Your task to perform on an android device: turn on bluetooth scan Image 0: 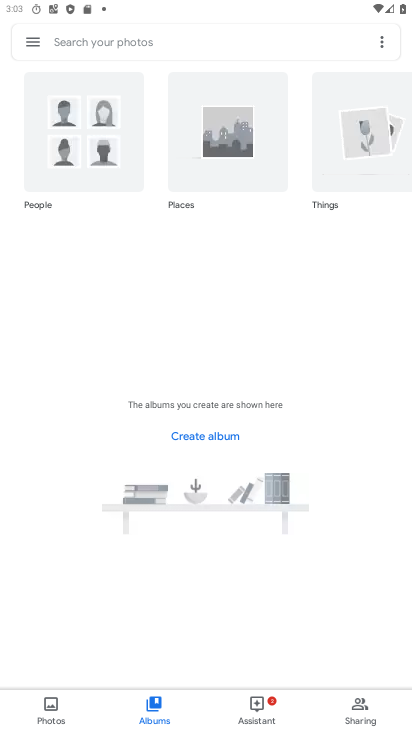
Step 0: click (93, 678)
Your task to perform on an android device: turn on bluetooth scan Image 1: 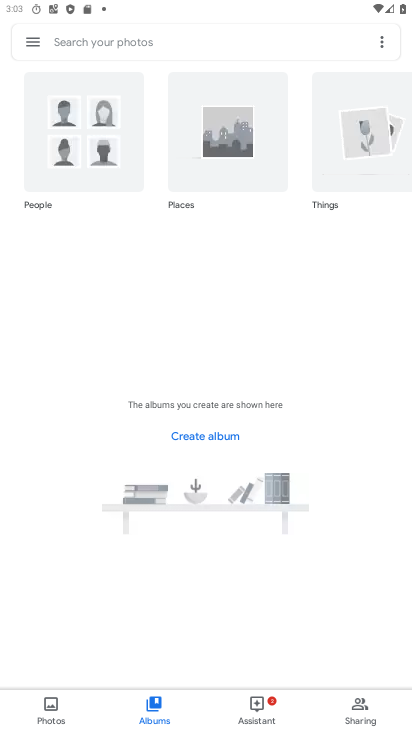
Step 1: click (49, 713)
Your task to perform on an android device: turn on bluetooth scan Image 2: 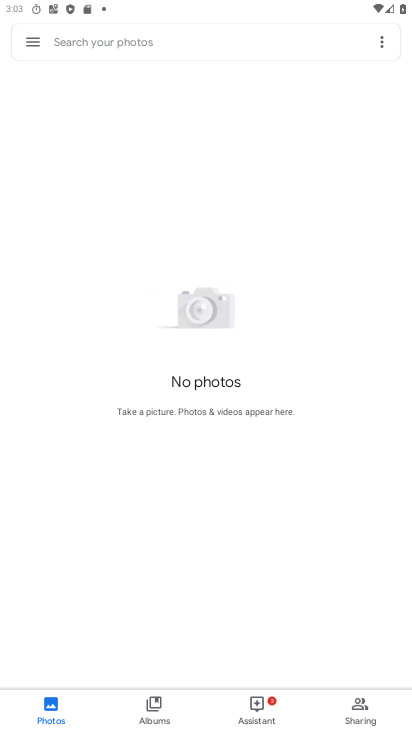
Step 2: press home button
Your task to perform on an android device: turn on bluetooth scan Image 3: 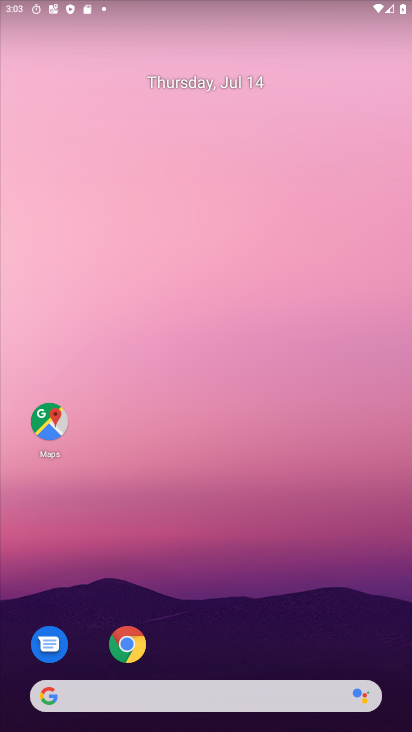
Step 3: click (160, 296)
Your task to perform on an android device: turn on bluetooth scan Image 4: 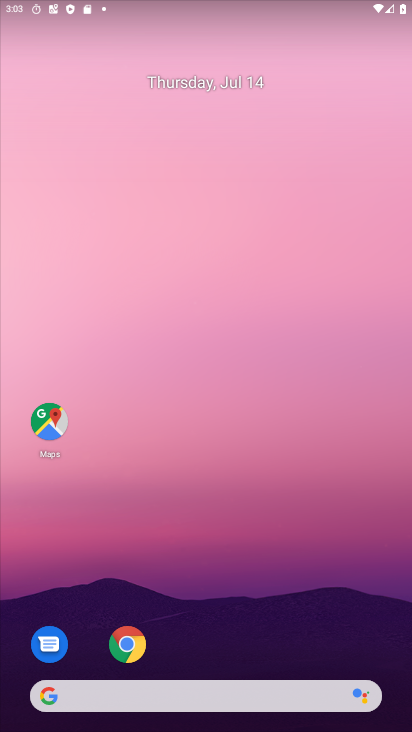
Step 4: drag from (29, 699) to (251, 3)
Your task to perform on an android device: turn on bluetooth scan Image 5: 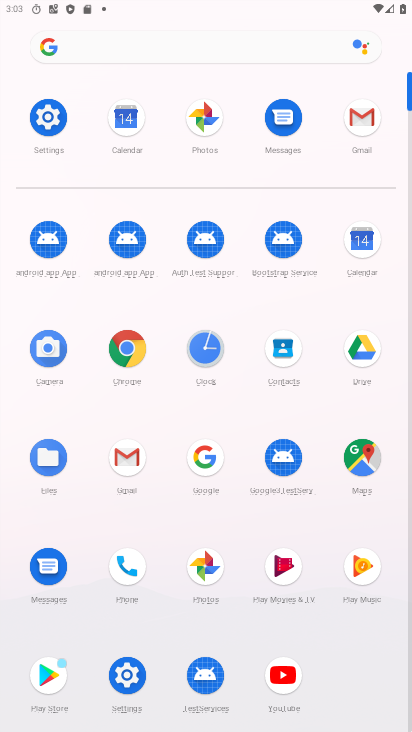
Step 5: click (133, 667)
Your task to perform on an android device: turn on bluetooth scan Image 6: 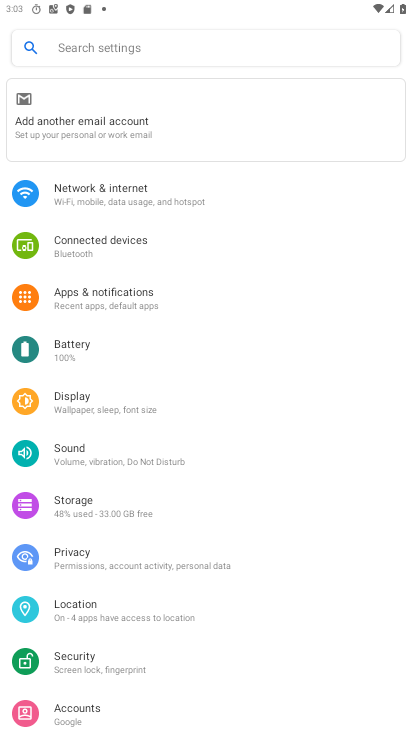
Step 6: click (131, 244)
Your task to perform on an android device: turn on bluetooth scan Image 7: 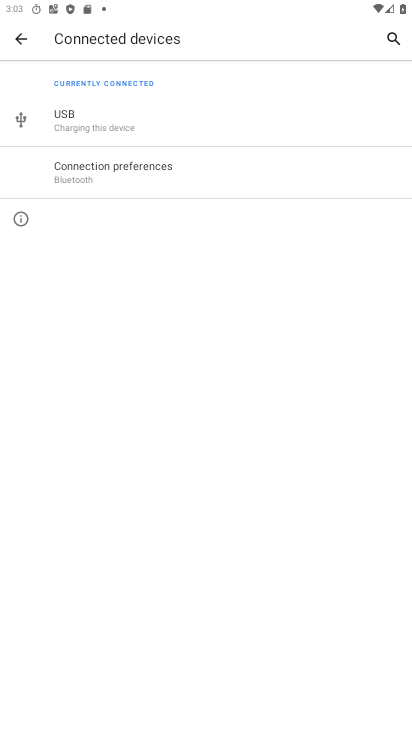
Step 7: click (133, 177)
Your task to perform on an android device: turn on bluetooth scan Image 8: 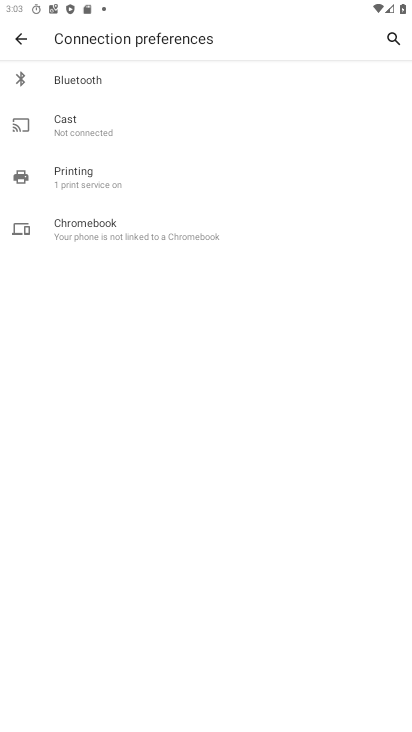
Step 8: click (98, 76)
Your task to perform on an android device: turn on bluetooth scan Image 9: 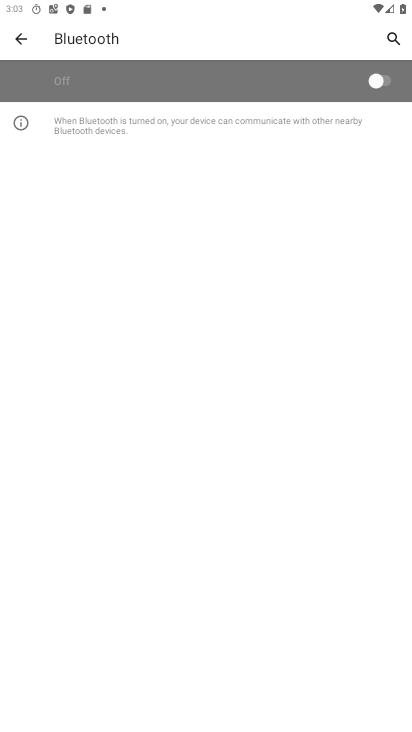
Step 9: task complete